Your task to perform on an android device: turn notification dots on Image 0: 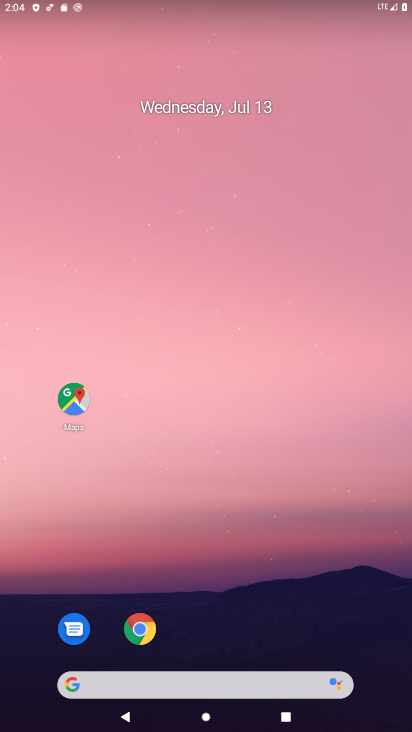
Step 0: drag from (331, 632) to (255, 153)
Your task to perform on an android device: turn notification dots on Image 1: 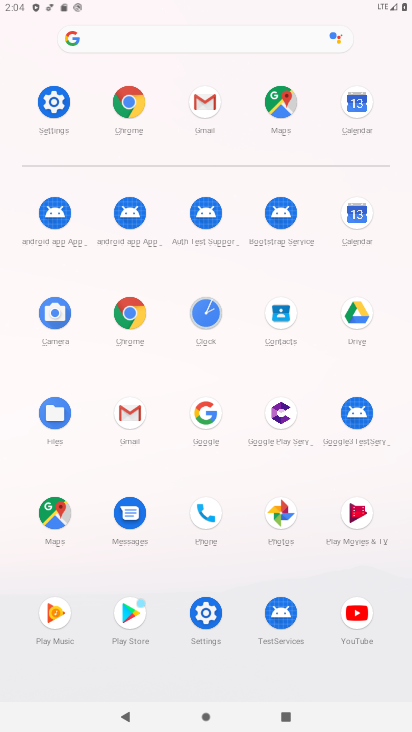
Step 1: click (57, 107)
Your task to perform on an android device: turn notification dots on Image 2: 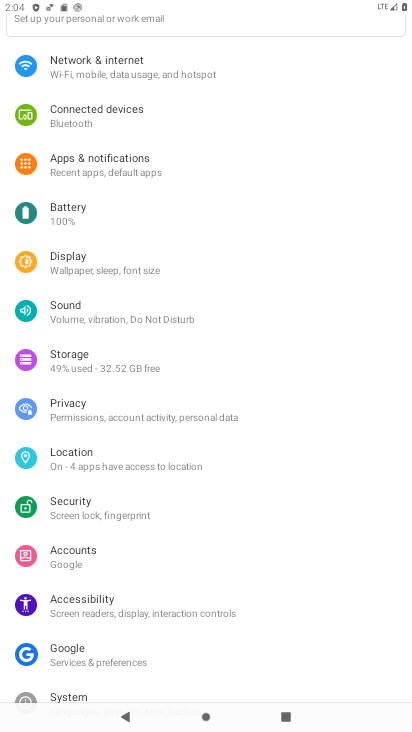
Step 2: click (138, 153)
Your task to perform on an android device: turn notification dots on Image 3: 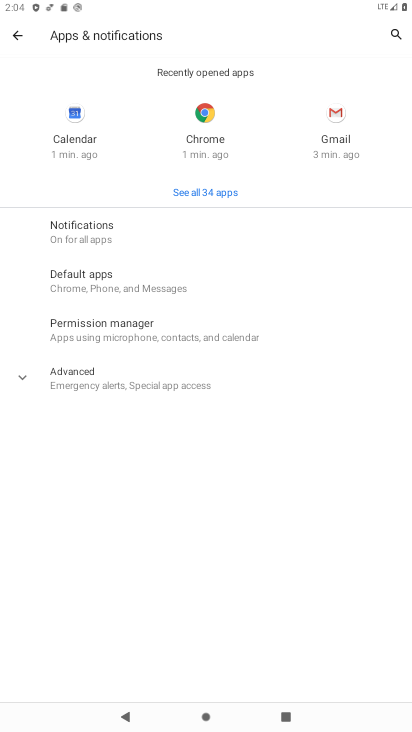
Step 3: click (89, 221)
Your task to perform on an android device: turn notification dots on Image 4: 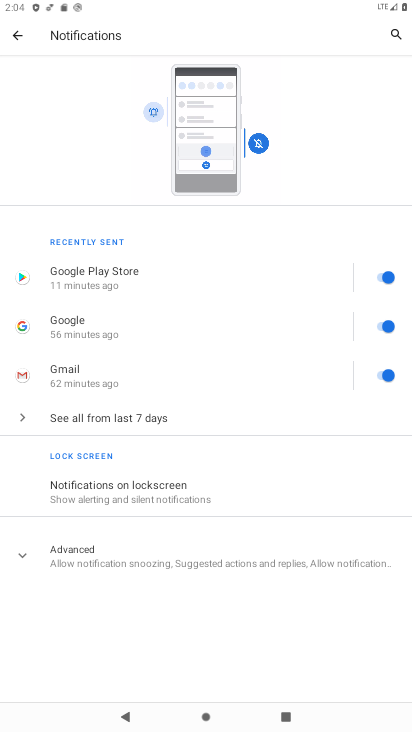
Step 4: click (105, 532)
Your task to perform on an android device: turn notification dots on Image 5: 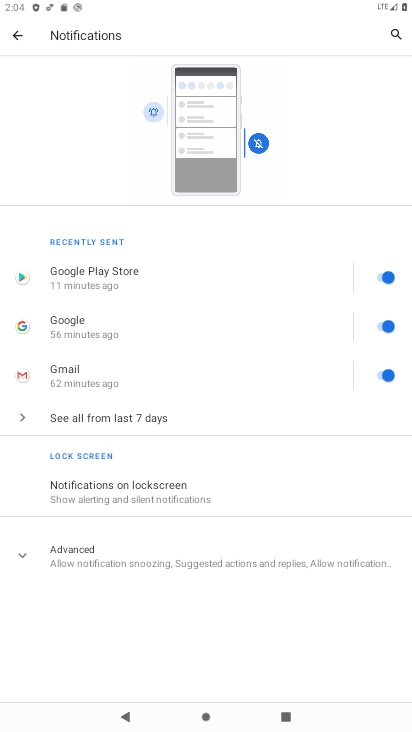
Step 5: click (96, 541)
Your task to perform on an android device: turn notification dots on Image 6: 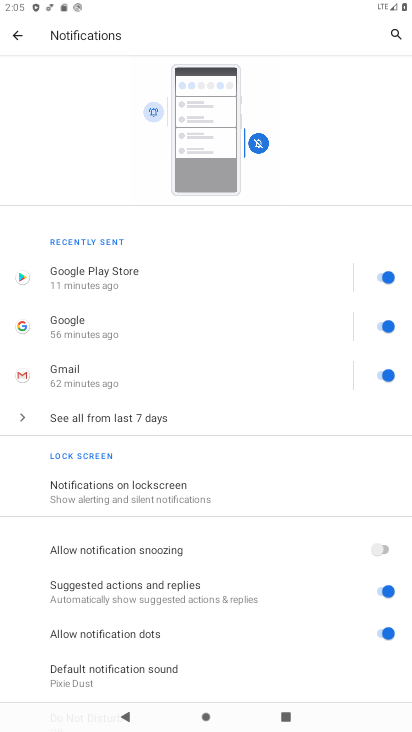
Step 6: task complete